Your task to perform on an android device: View the shopping cart on ebay. Image 0: 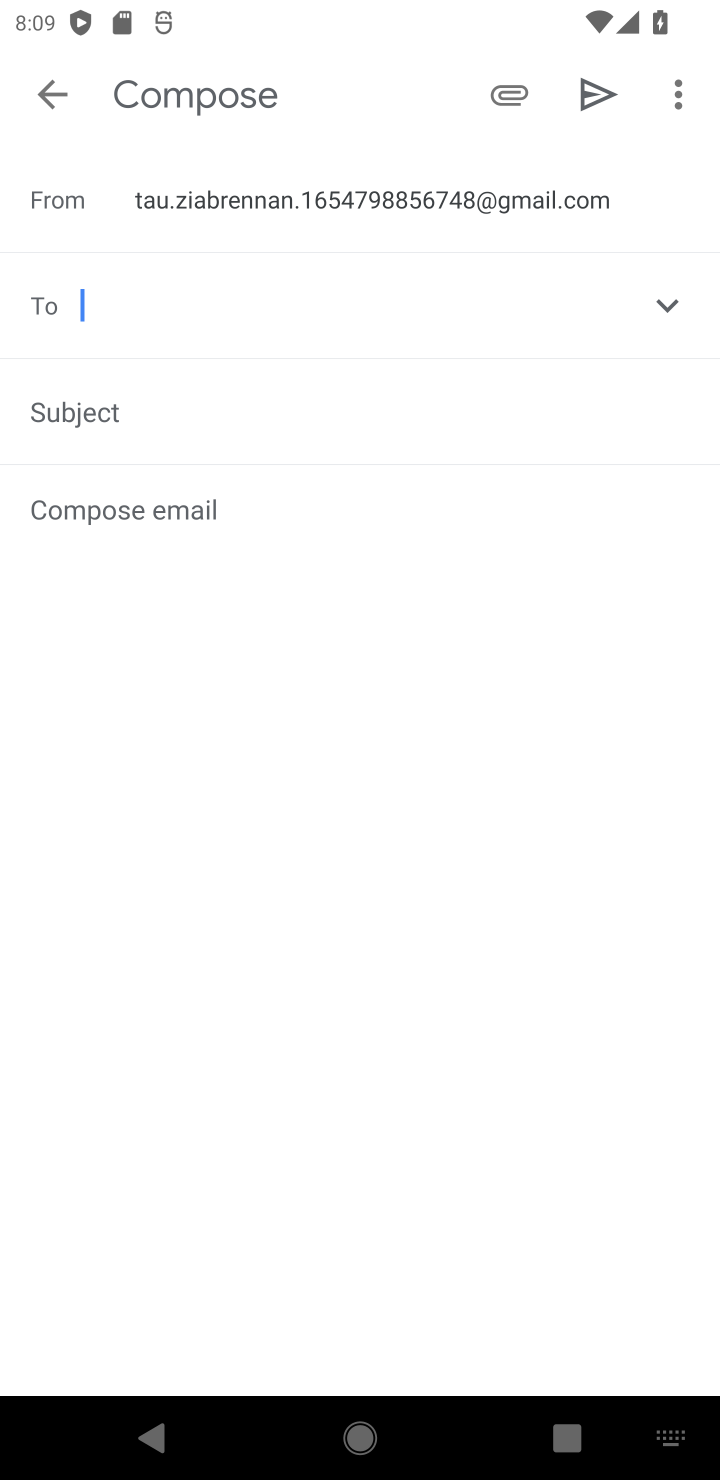
Step 0: press home button
Your task to perform on an android device: View the shopping cart on ebay. Image 1: 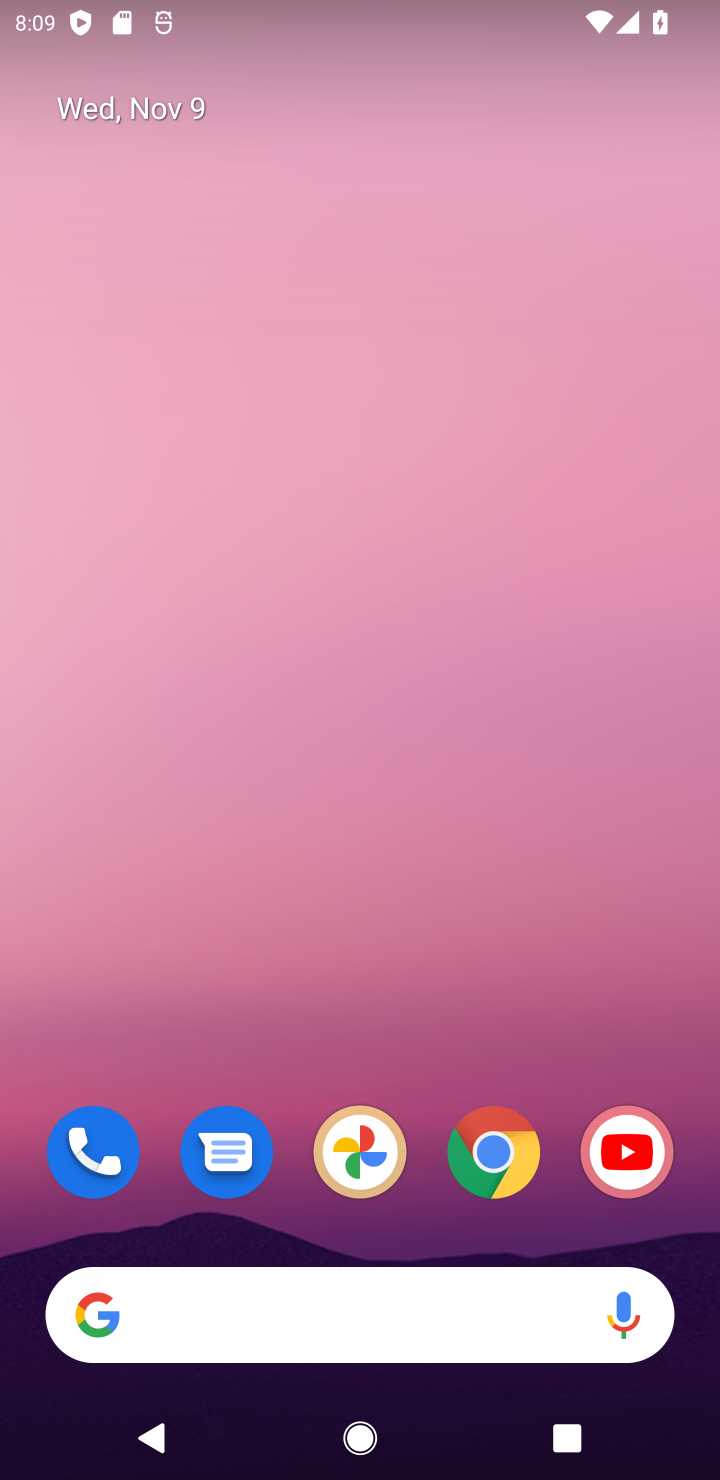
Step 1: click (507, 1138)
Your task to perform on an android device: View the shopping cart on ebay. Image 2: 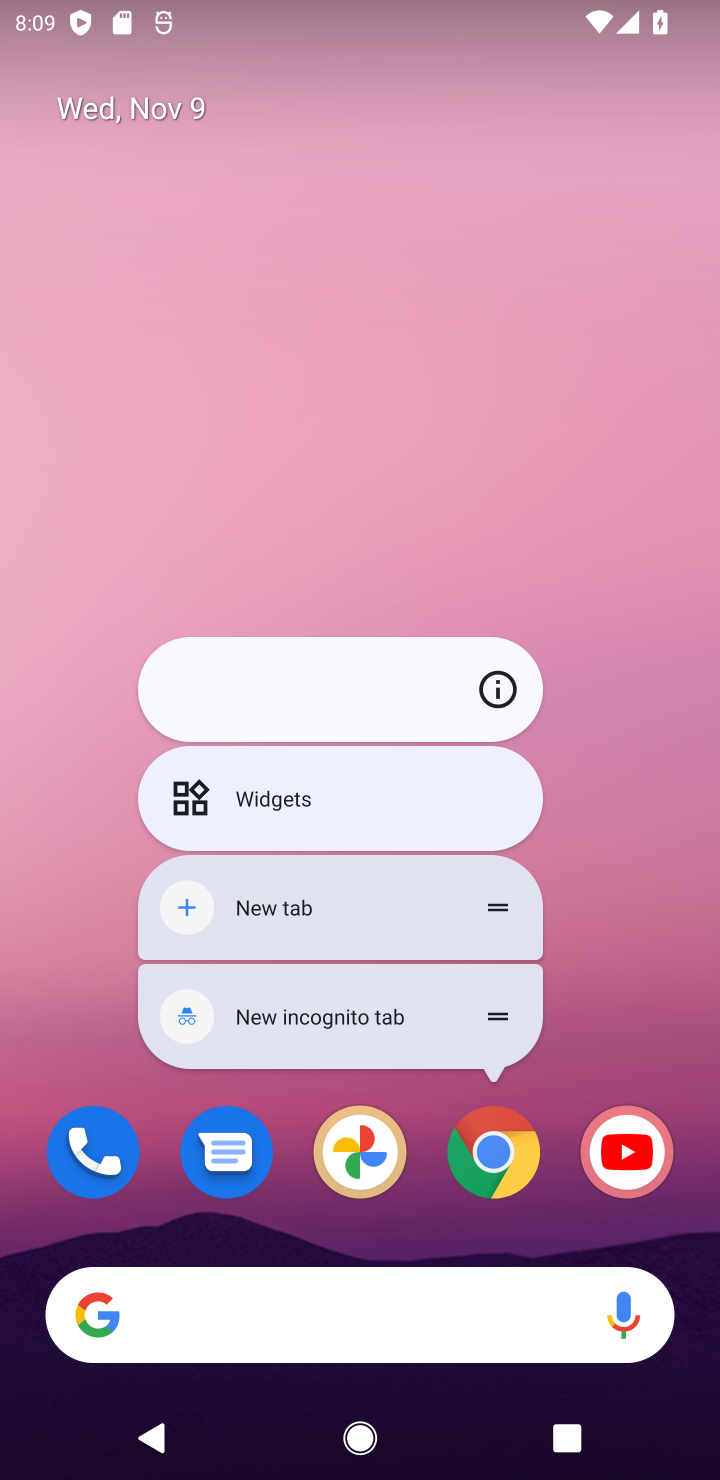
Step 2: click (509, 1152)
Your task to perform on an android device: View the shopping cart on ebay. Image 3: 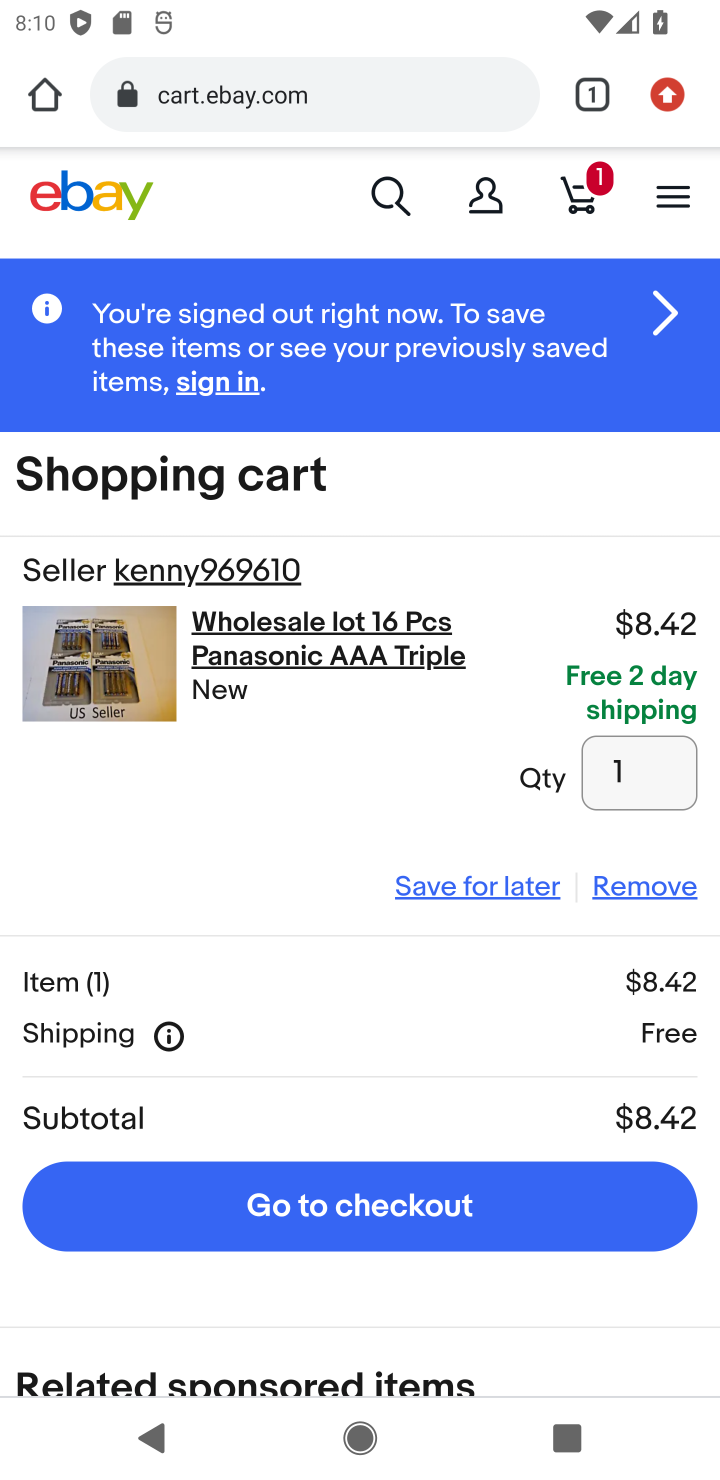
Step 3: click (281, 91)
Your task to perform on an android device: View the shopping cart on ebay. Image 4: 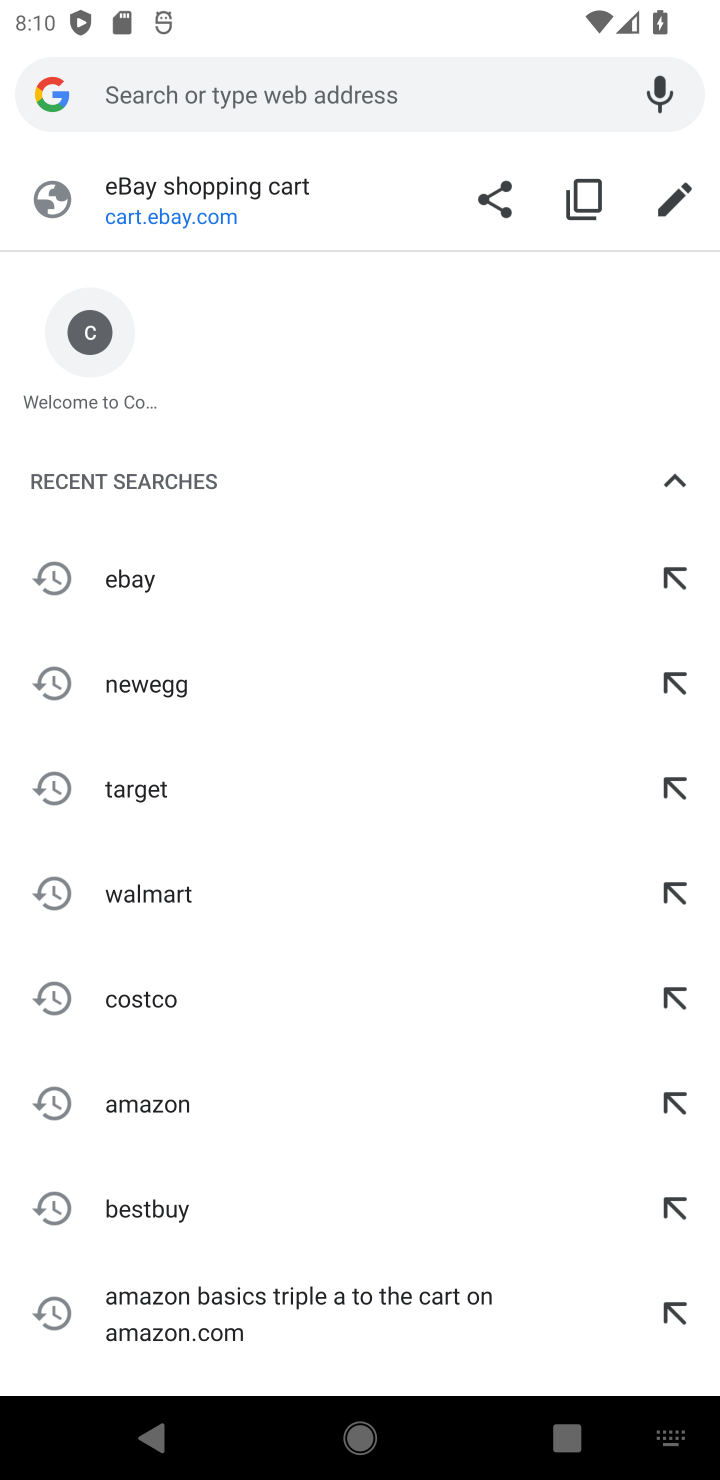
Step 4: click (123, 578)
Your task to perform on an android device: View the shopping cart on ebay. Image 5: 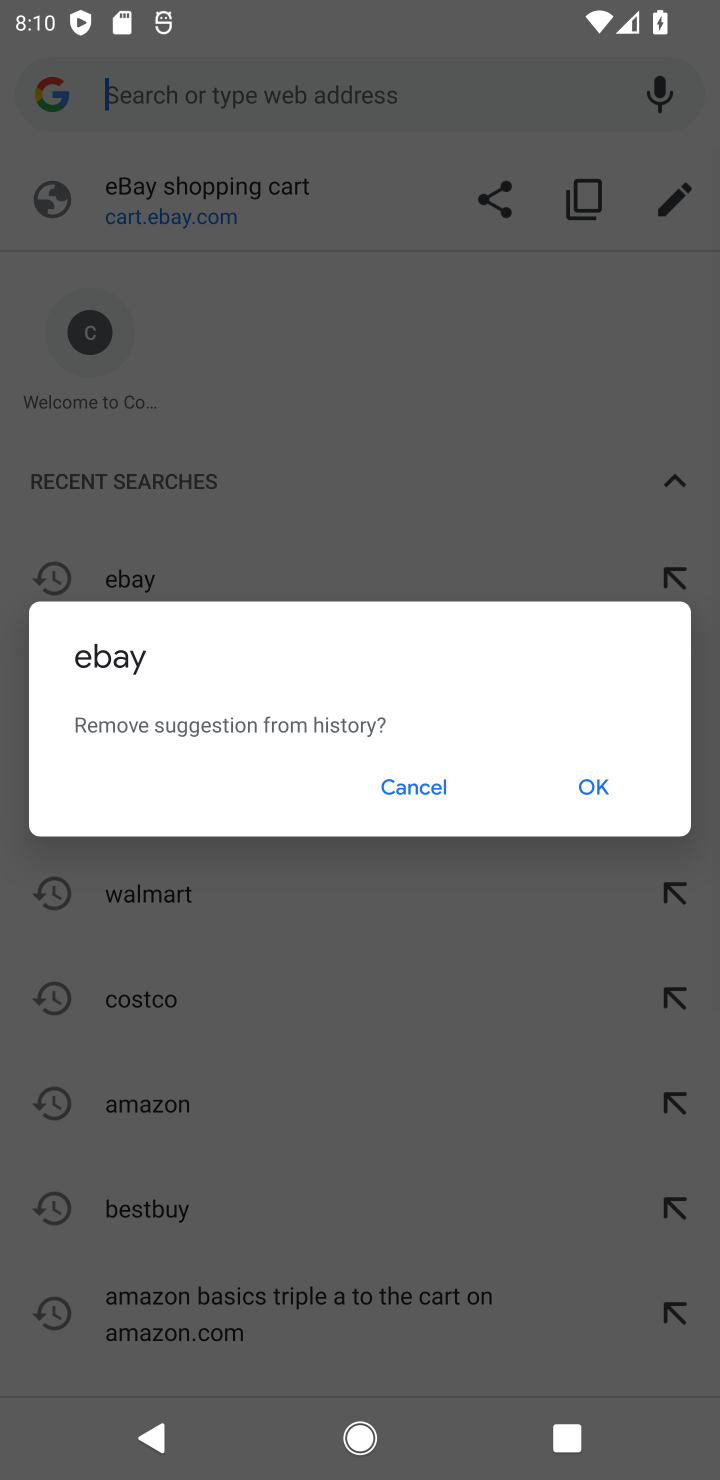
Step 5: click (421, 775)
Your task to perform on an android device: View the shopping cart on ebay. Image 6: 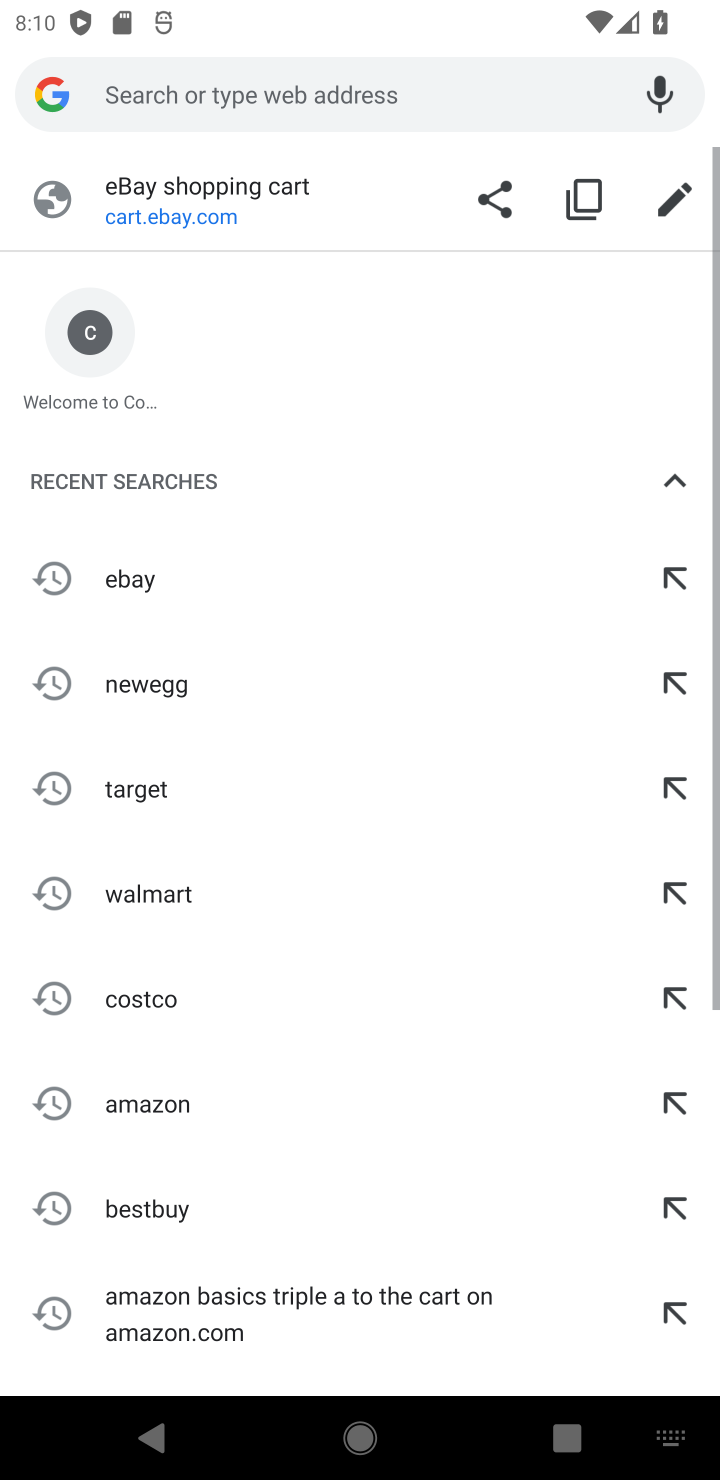
Step 6: click (123, 567)
Your task to perform on an android device: View the shopping cart on ebay. Image 7: 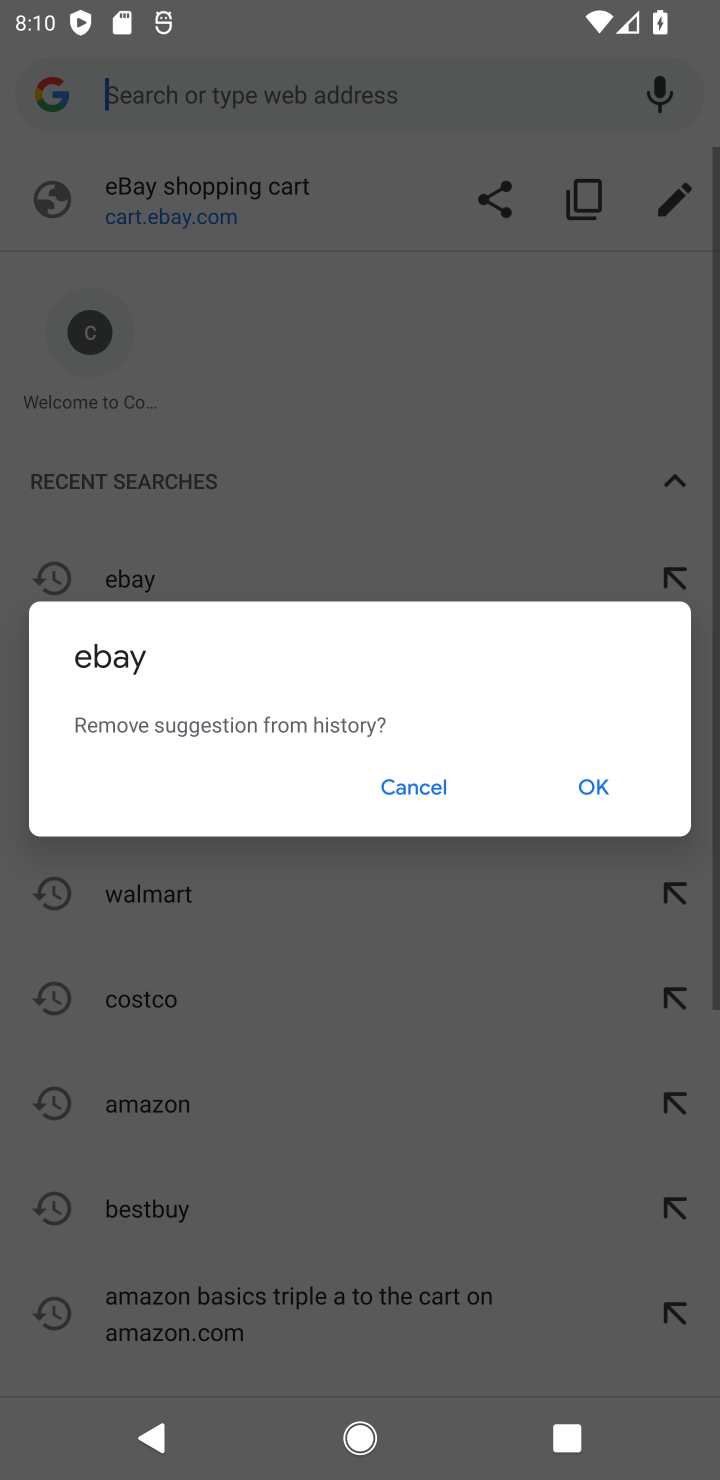
Step 7: click (424, 792)
Your task to perform on an android device: View the shopping cart on ebay. Image 8: 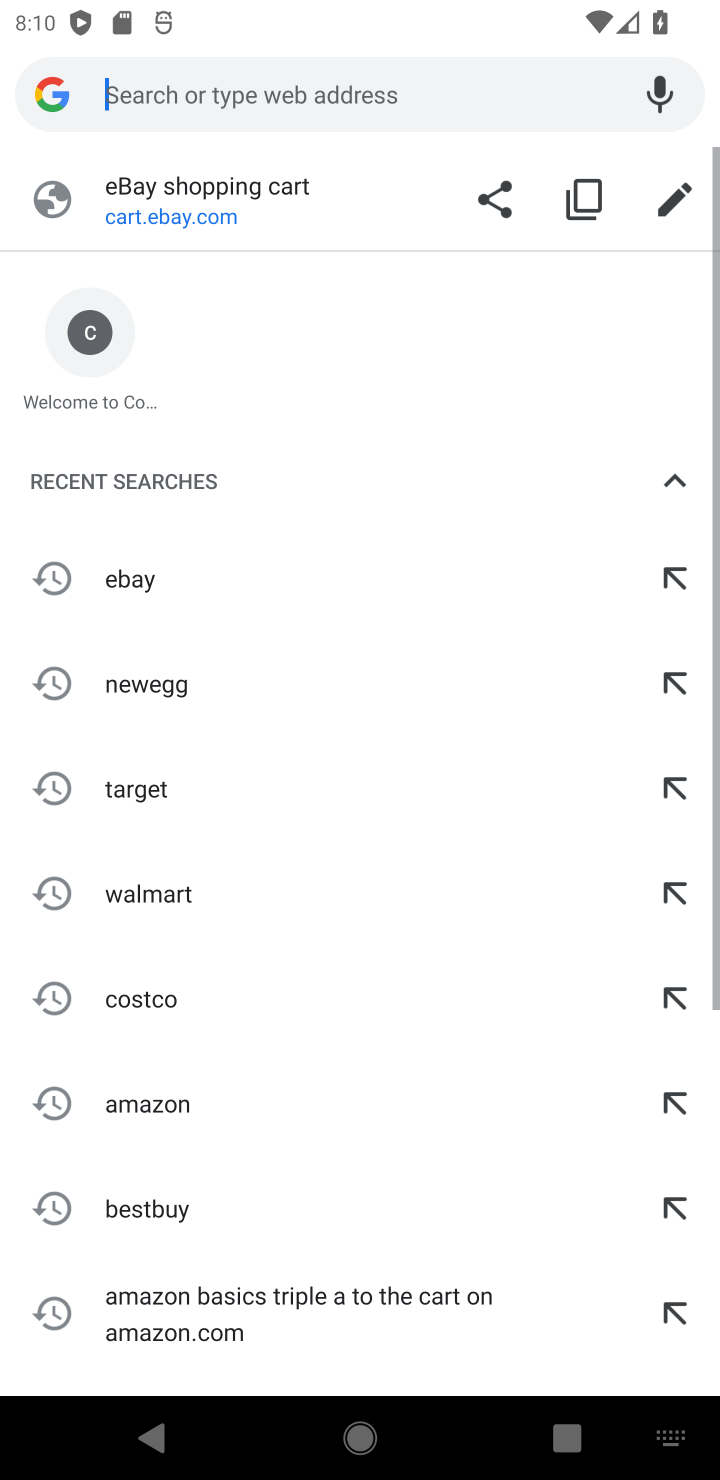
Step 8: click (129, 579)
Your task to perform on an android device: View the shopping cart on ebay. Image 9: 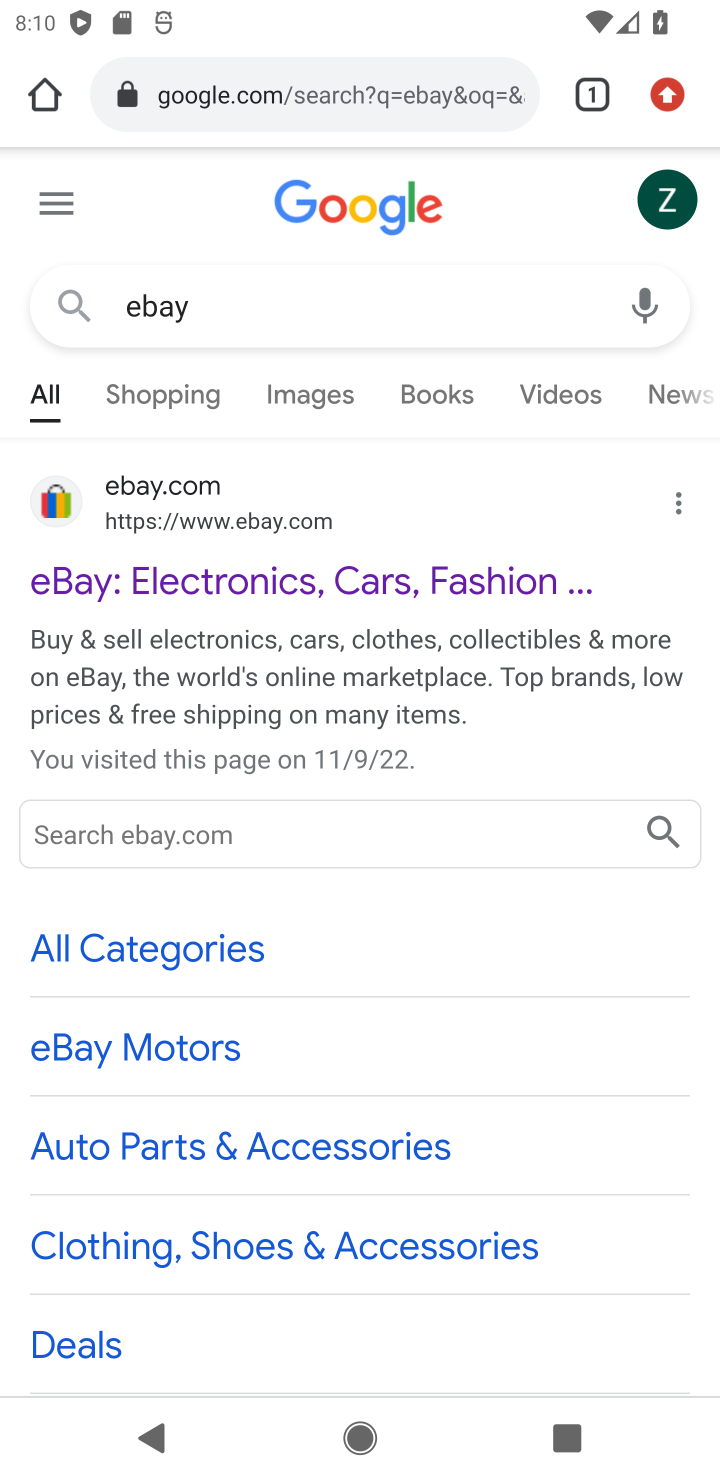
Step 9: click (352, 571)
Your task to perform on an android device: View the shopping cart on ebay. Image 10: 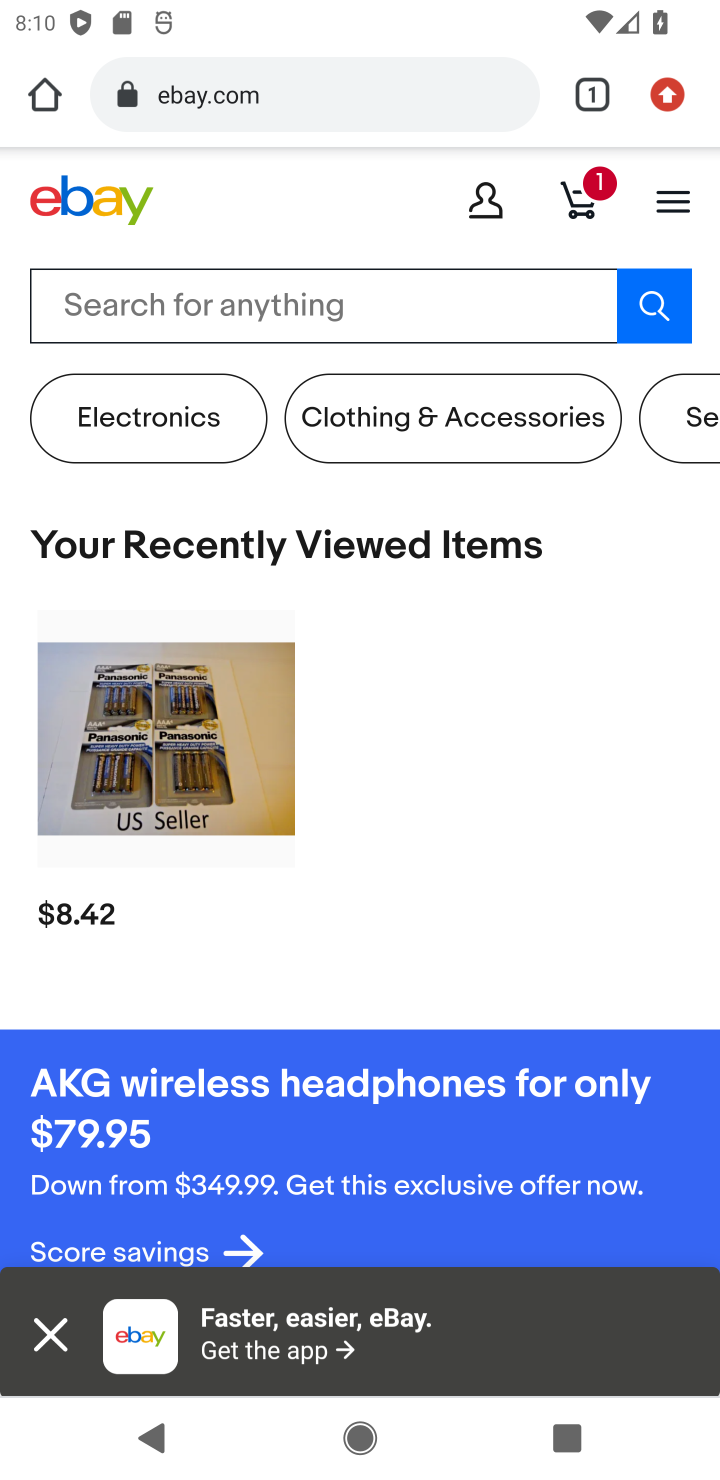
Step 10: click (599, 171)
Your task to perform on an android device: View the shopping cart on ebay. Image 11: 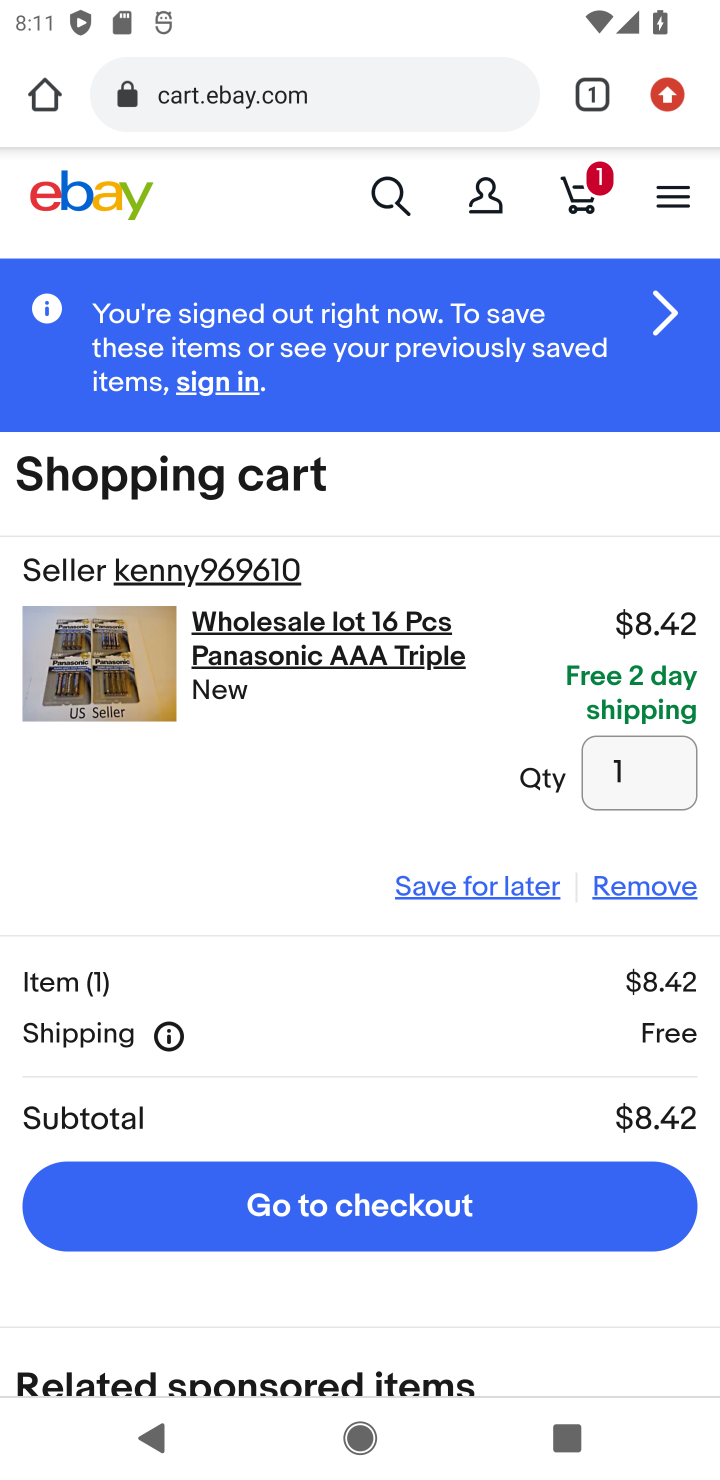
Step 11: task complete